Your task to perform on an android device: Is it going to rain this weekend? Image 0: 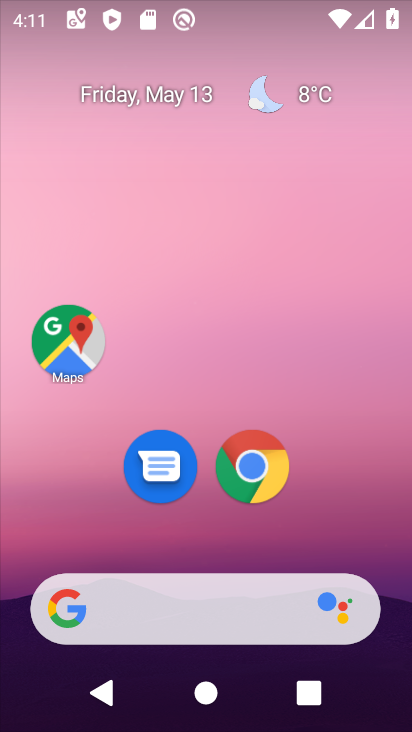
Step 0: click (310, 93)
Your task to perform on an android device: Is it going to rain this weekend? Image 1: 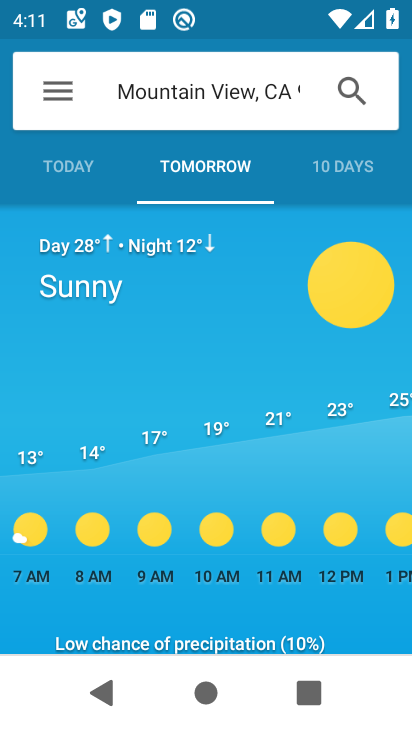
Step 1: click (356, 159)
Your task to perform on an android device: Is it going to rain this weekend? Image 2: 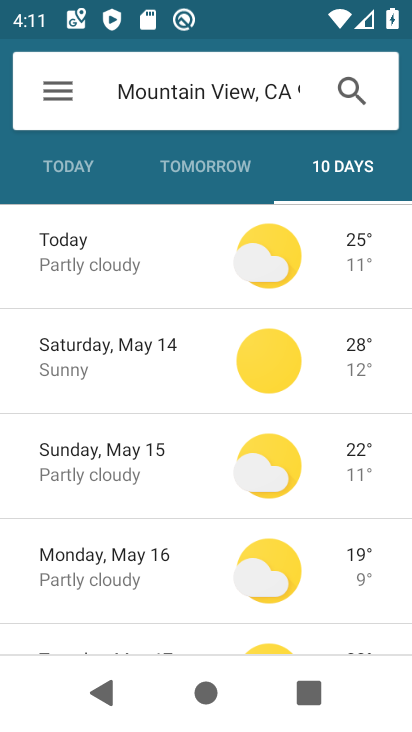
Step 2: task complete